Your task to perform on an android device: open a bookmark in the chrome app Image 0: 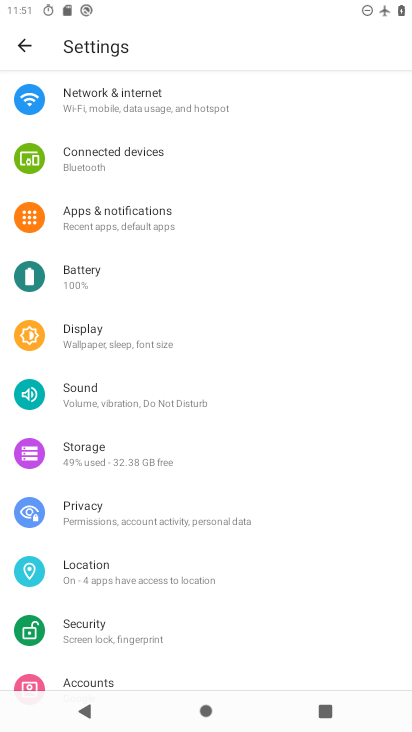
Step 0: press home button
Your task to perform on an android device: open a bookmark in the chrome app Image 1: 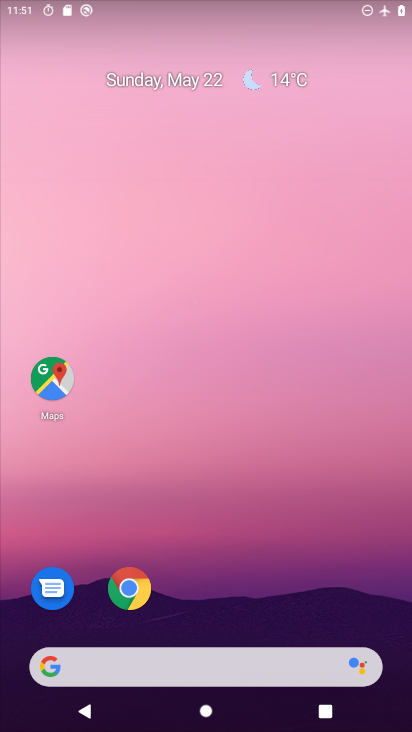
Step 1: click (139, 575)
Your task to perform on an android device: open a bookmark in the chrome app Image 2: 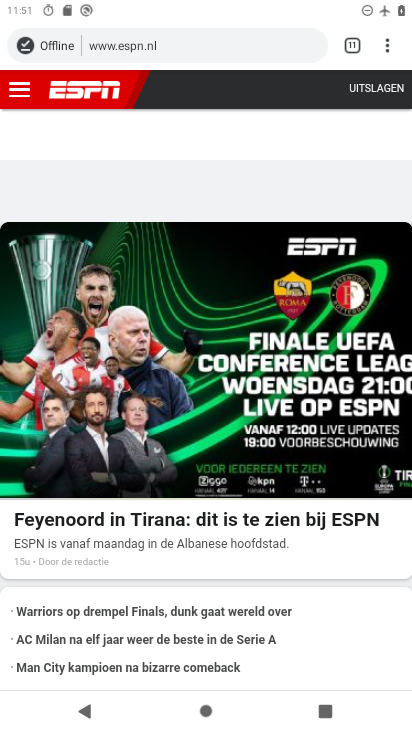
Step 2: drag from (381, 38) to (280, 171)
Your task to perform on an android device: open a bookmark in the chrome app Image 3: 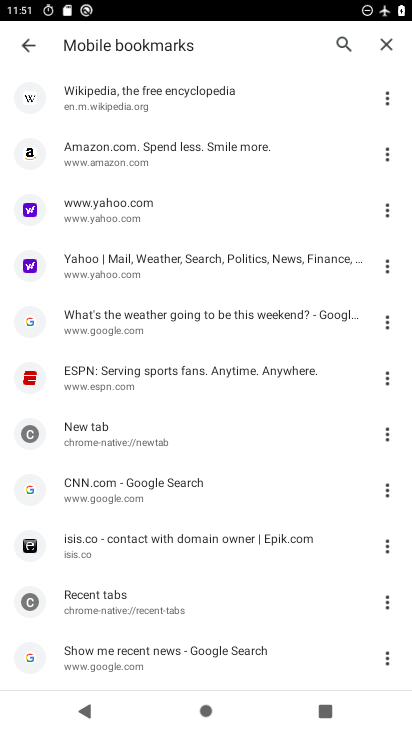
Step 3: click (128, 385)
Your task to perform on an android device: open a bookmark in the chrome app Image 4: 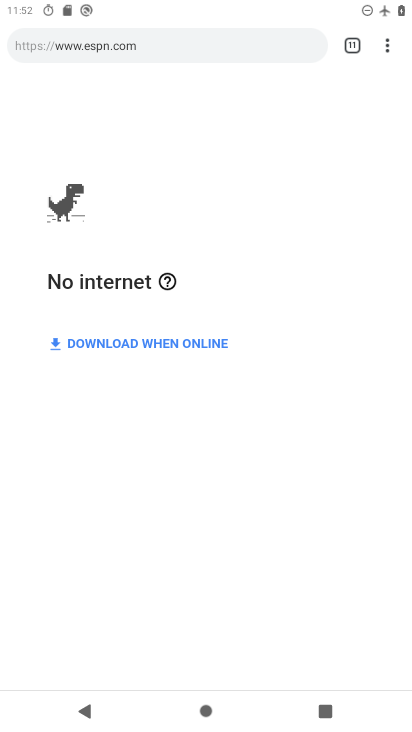
Step 4: task complete